Your task to perform on an android device: What's the weather? Image 0: 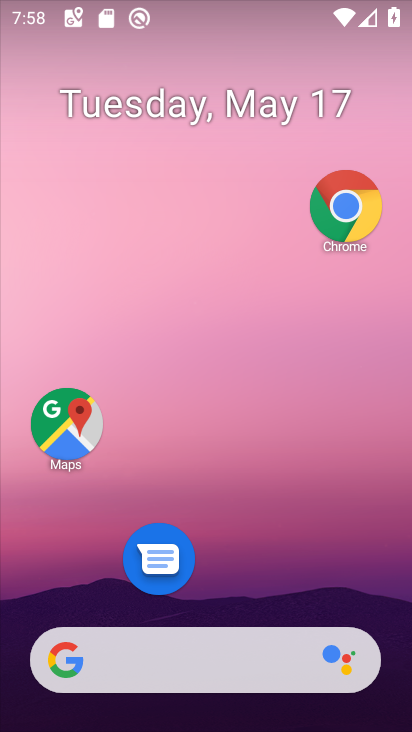
Step 0: drag from (250, 374) to (275, 29)
Your task to perform on an android device: What's the weather? Image 1: 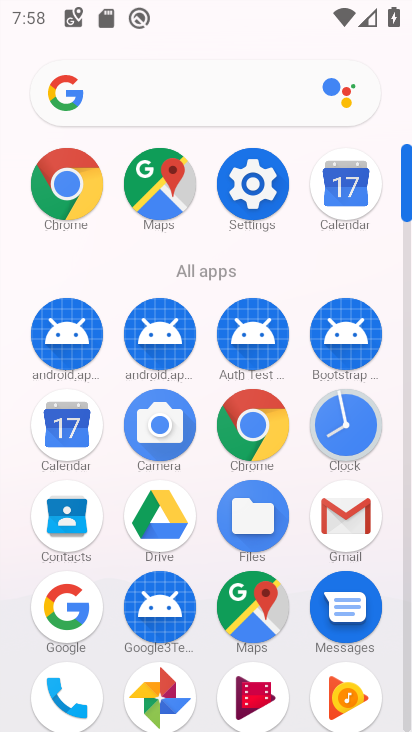
Step 1: drag from (243, 369) to (256, 180)
Your task to perform on an android device: What's the weather? Image 2: 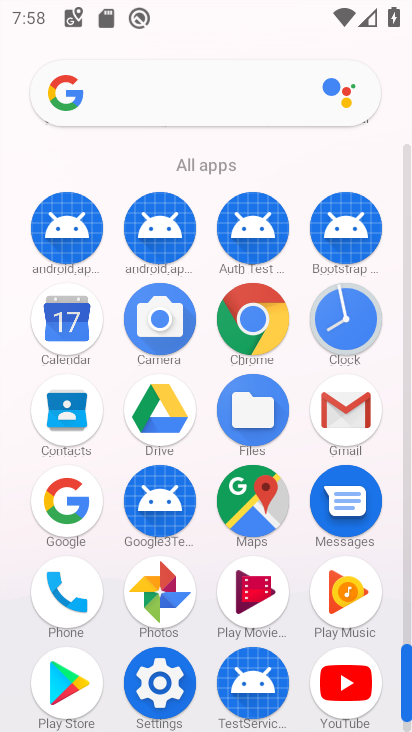
Step 2: click (65, 497)
Your task to perform on an android device: What's the weather? Image 3: 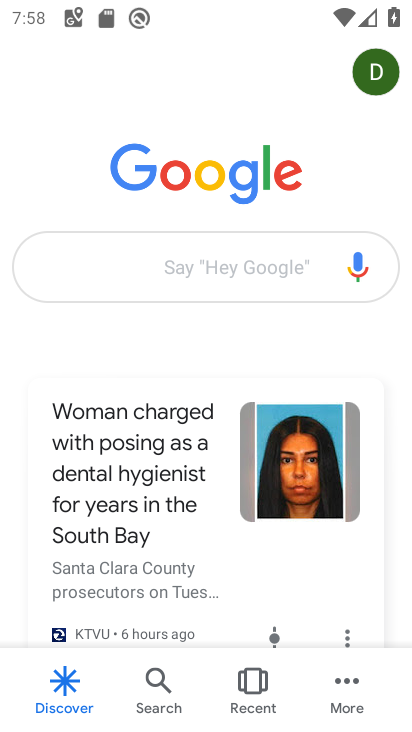
Step 3: click (193, 274)
Your task to perform on an android device: What's the weather? Image 4: 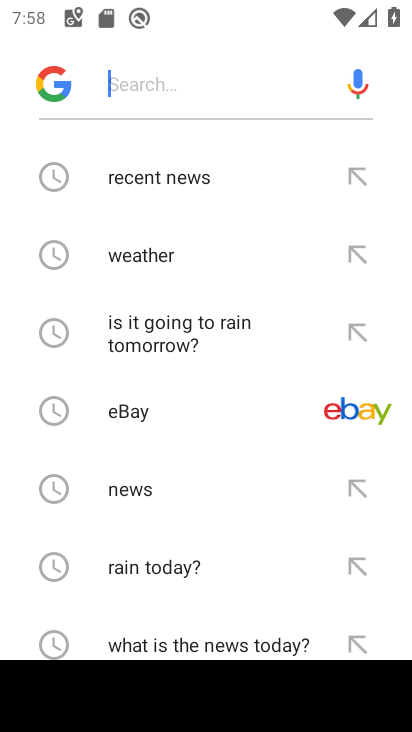
Step 4: click (193, 250)
Your task to perform on an android device: What's the weather? Image 5: 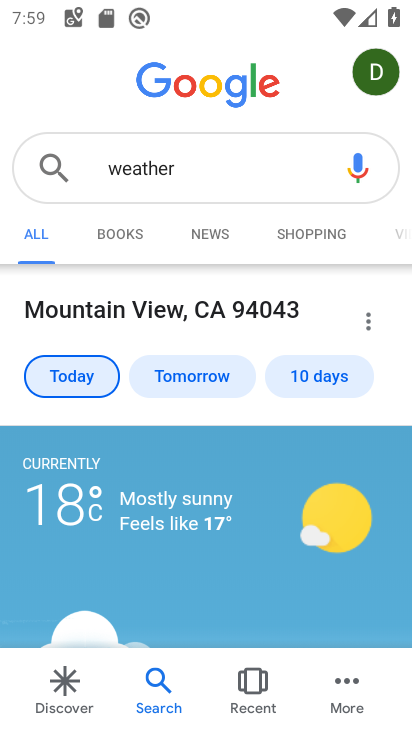
Step 5: task complete